Your task to perform on an android device: check battery use Image 0: 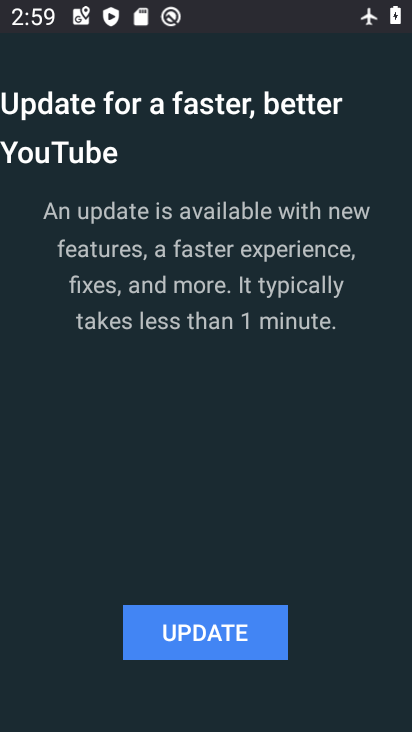
Step 0: press home button
Your task to perform on an android device: check battery use Image 1: 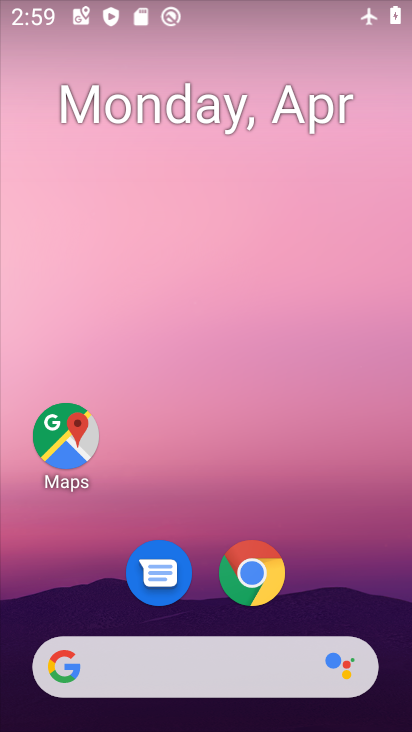
Step 1: drag from (356, 584) to (367, 62)
Your task to perform on an android device: check battery use Image 2: 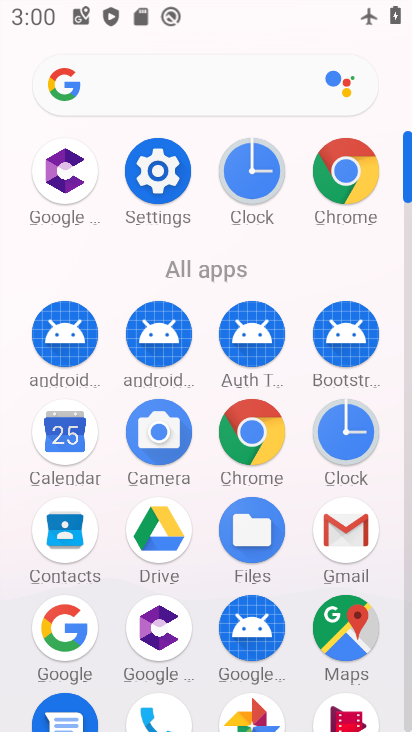
Step 2: click (161, 172)
Your task to perform on an android device: check battery use Image 3: 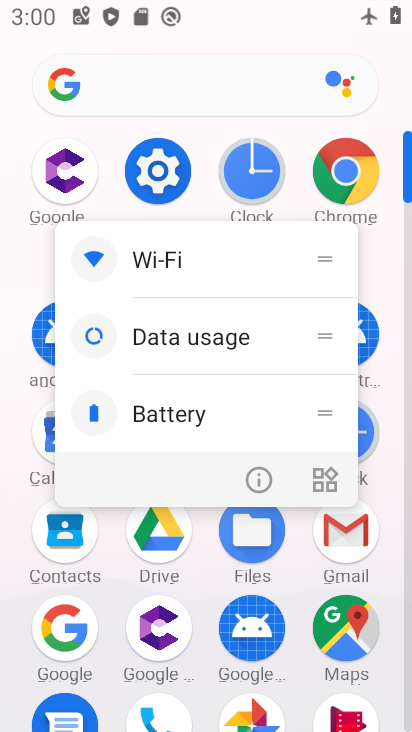
Step 3: click (164, 173)
Your task to perform on an android device: check battery use Image 4: 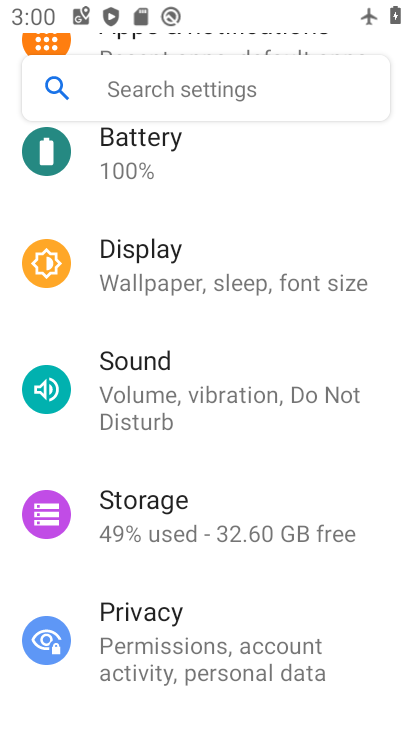
Step 4: drag from (356, 599) to (370, 351)
Your task to perform on an android device: check battery use Image 5: 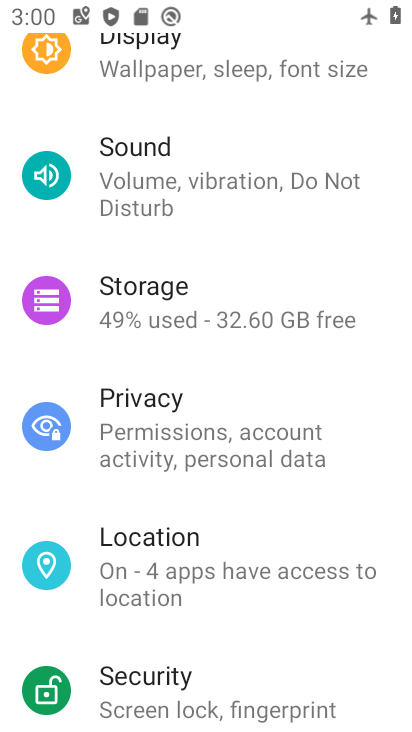
Step 5: drag from (363, 638) to (368, 379)
Your task to perform on an android device: check battery use Image 6: 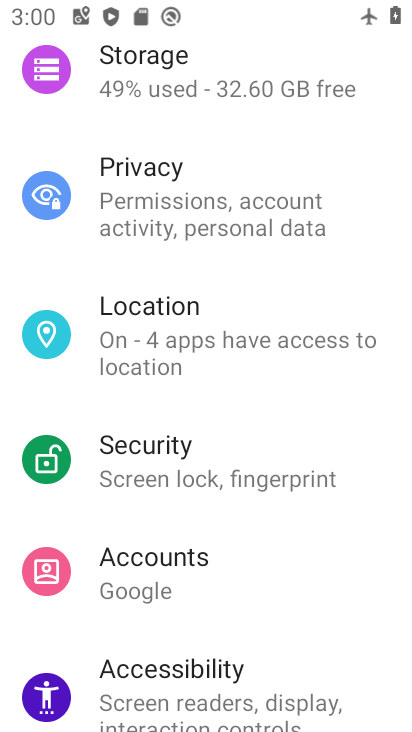
Step 6: drag from (350, 629) to (355, 412)
Your task to perform on an android device: check battery use Image 7: 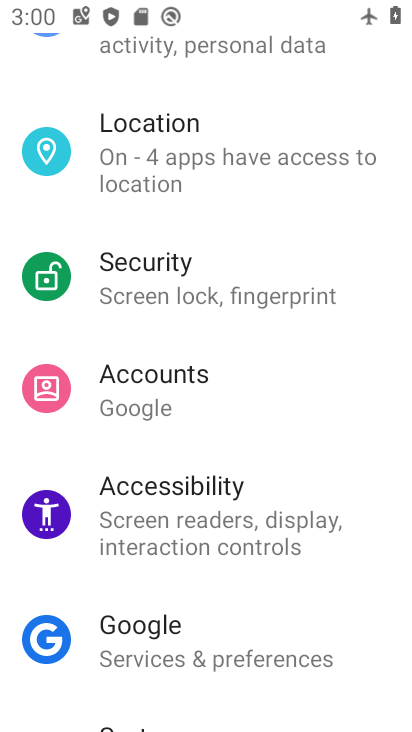
Step 7: drag from (351, 651) to (365, 410)
Your task to perform on an android device: check battery use Image 8: 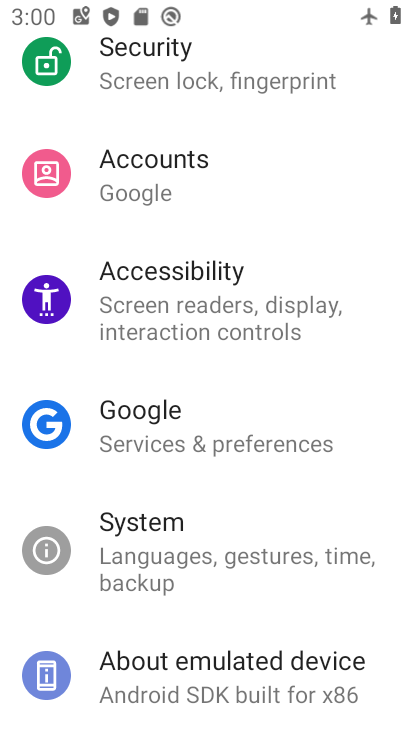
Step 8: drag from (351, 603) to (346, 411)
Your task to perform on an android device: check battery use Image 9: 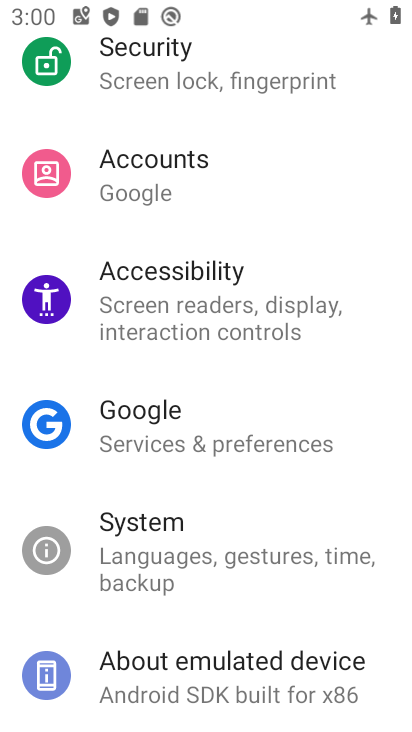
Step 9: drag from (375, 262) to (364, 463)
Your task to perform on an android device: check battery use Image 10: 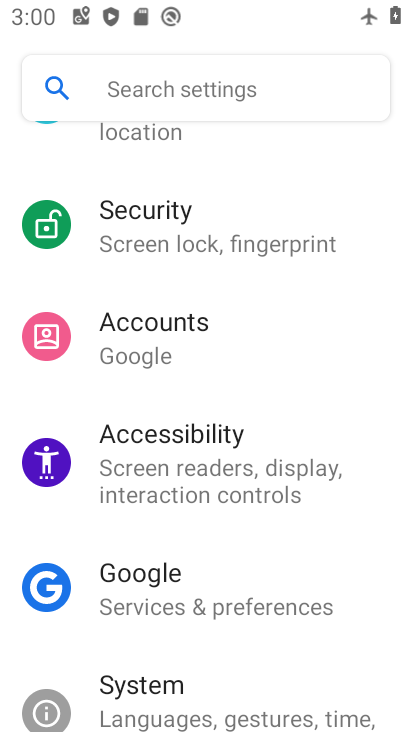
Step 10: drag from (379, 256) to (355, 404)
Your task to perform on an android device: check battery use Image 11: 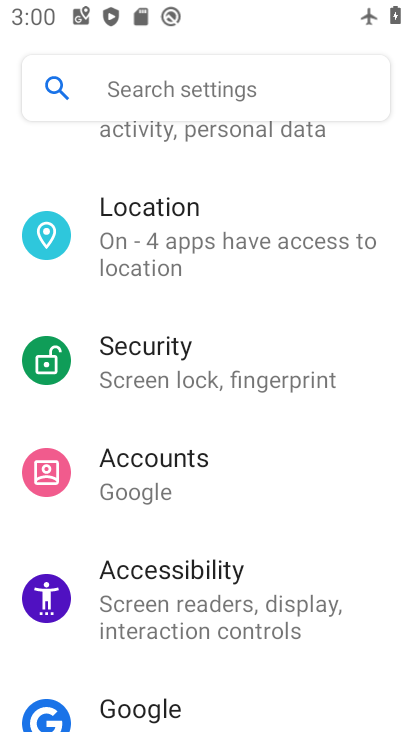
Step 11: drag from (366, 398) to (353, 540)
Your task to perform on an android device: check battery use Image 12: 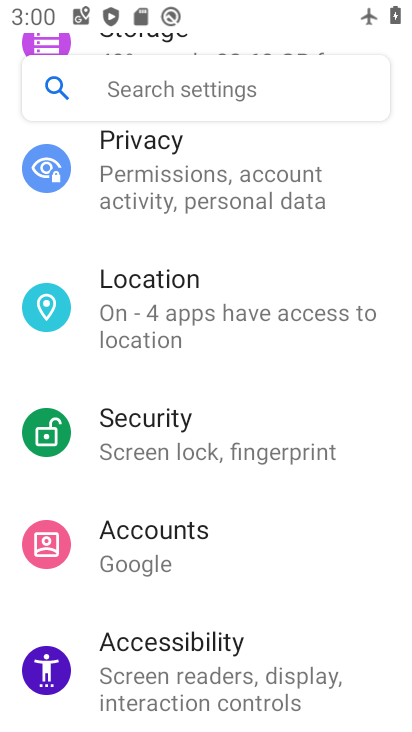
Step 12: drag from (374, 190) to (369, 477)
Your task to perform on an android device: check battery use Image 13: 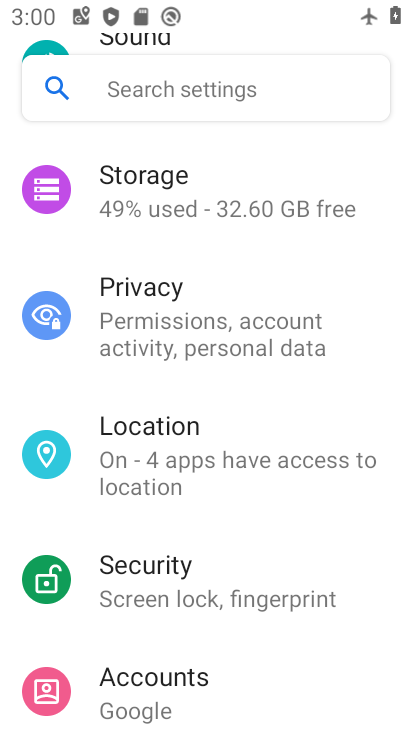
Step 13: drag from (376, 205) to (373, 487)
Your task to perform on an android device: check battery use Image 14: 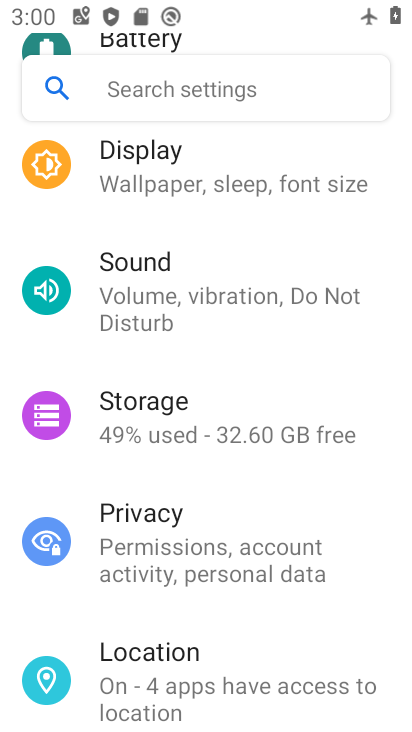
Step 14: drag from (382, 226) to (370, 460)
Your task to perform on an android device: check battery use Image 15: 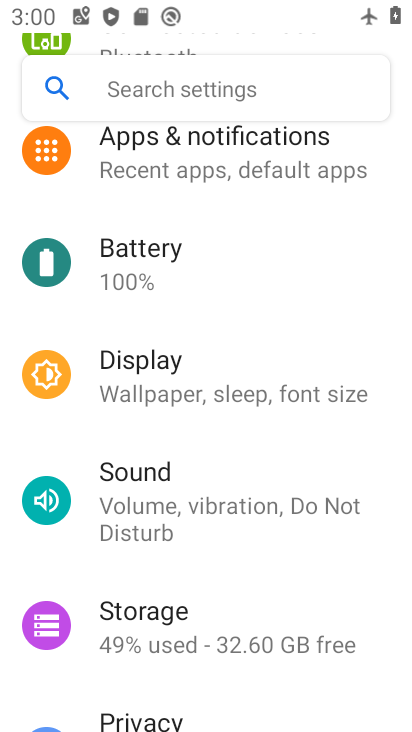
Step 15: click (137, 254)
Your task to perform on an android device: check battery use Image 16: 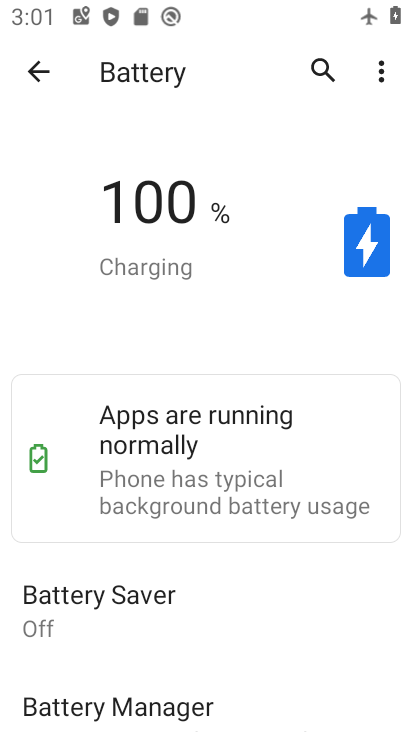
Step 16: click (383, 78)
Your task to perform on an android device: check battery use Image 17: 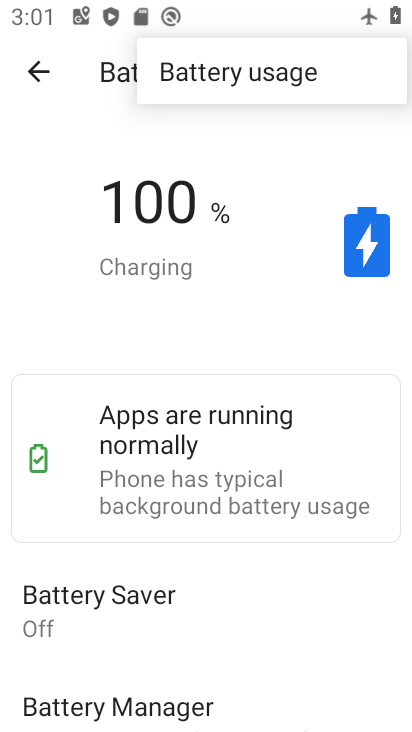
Step 17: click (307, 83)
Your task to perform on an android device: check battery use Image 18: 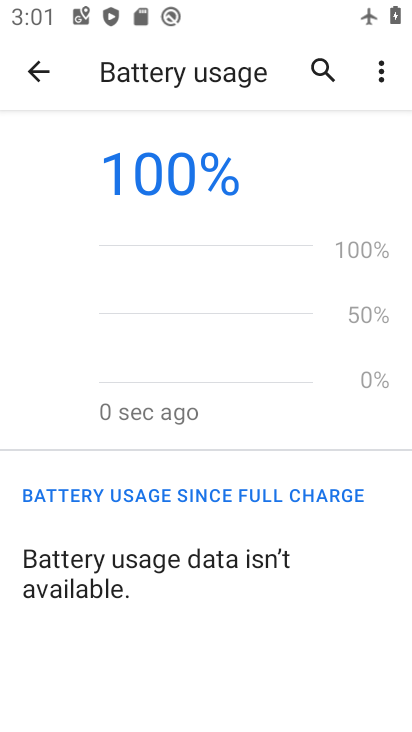
Step 18: task complete